Your task to perform on an android device: Go to battery settings Image 0: 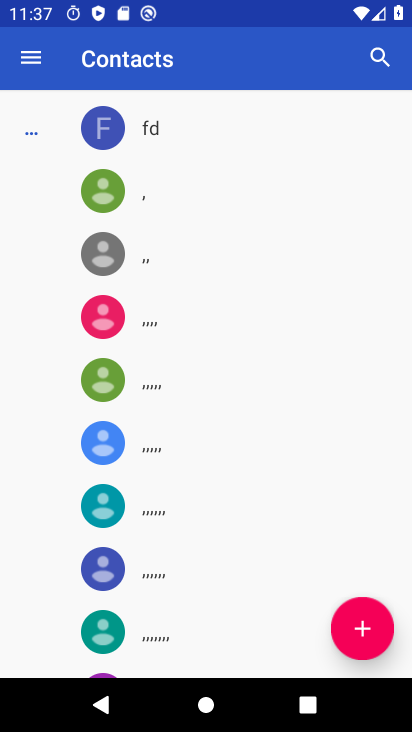
Step 0: press home button
Your task to perform on an android device: Go to battery settings Image 1: 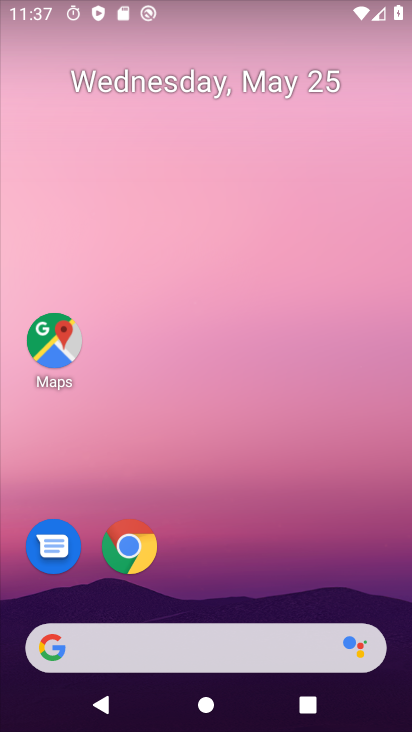
Step 1: drag from (252, 571) to (269, 1)
Your task to perform on an android device: Go to battery settings Image 2: 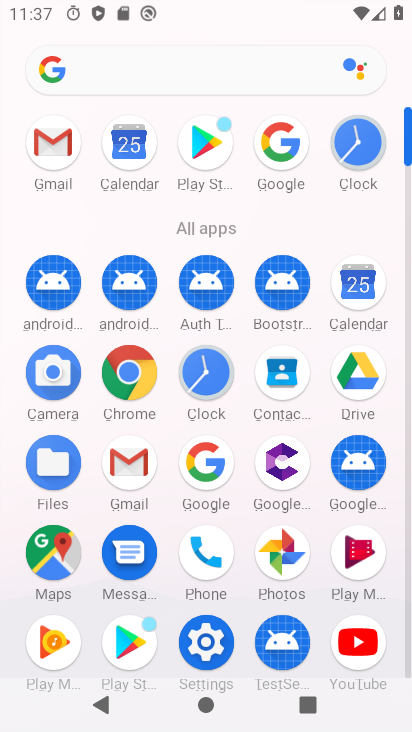
Step 2: click (204, 647)
Your task to perform on an android device: Go to battery settings Image 3: 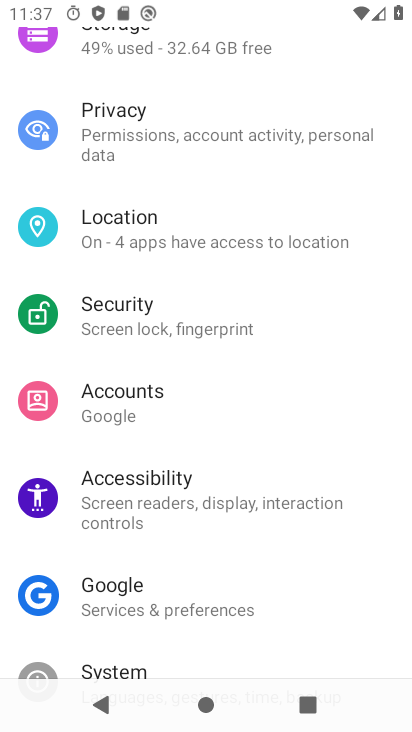
Step 3: drag from (192, 191) to (258, 607)
Your task to perform on an android device: Go to battery settings Image 4: 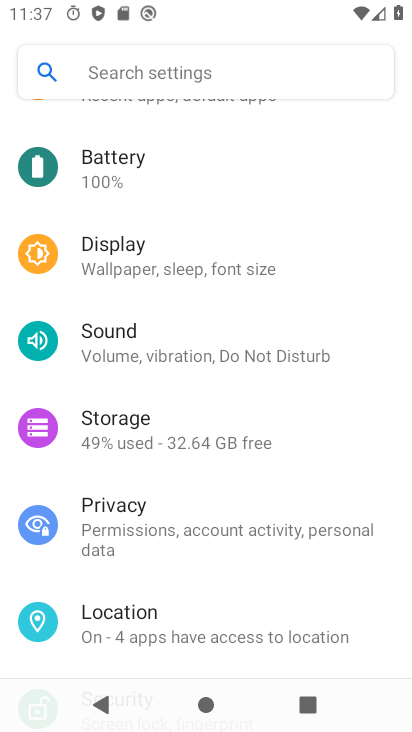
Step 4: click (179, 165)
Your task to perform on an android device: Go to battery settings Image 5: 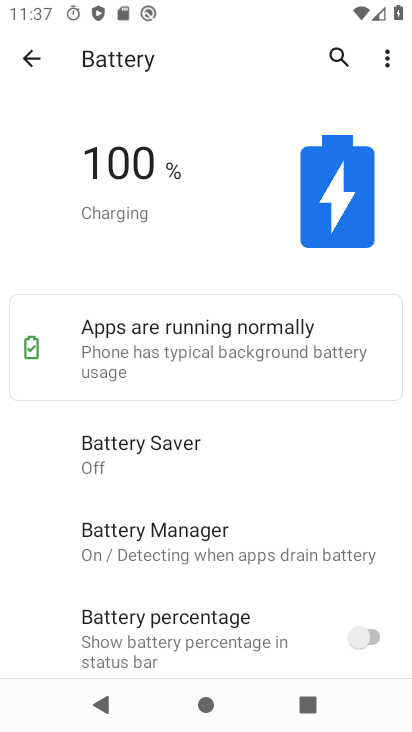
Step 5: task complete